Your task to perform on an android device: toggle wifi Image 0: 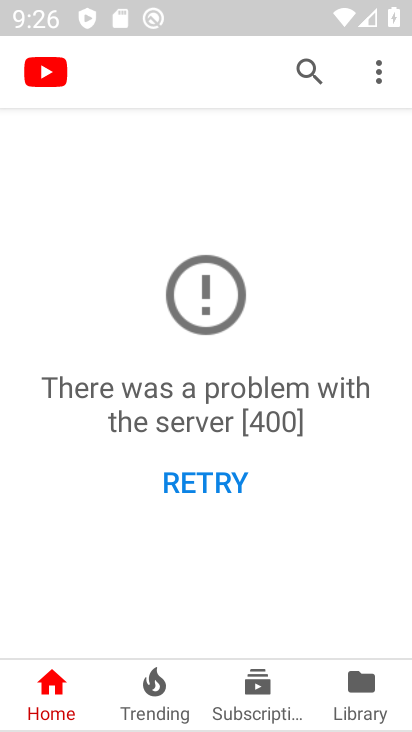
Step 0: press back button
Your task to perform on an android device: toggle wifi Image 1: 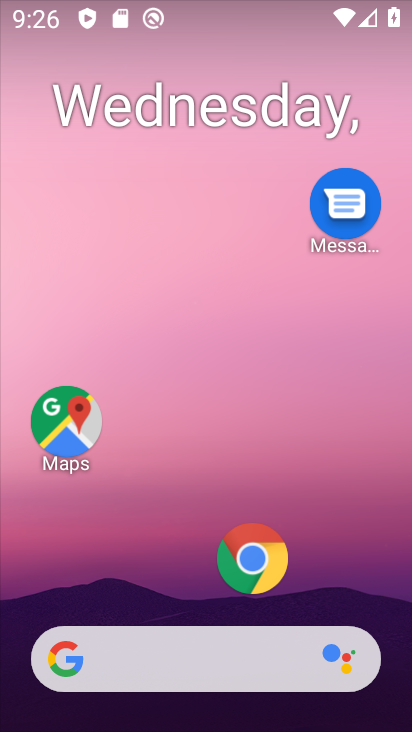
Step 1: drag from (198, 664) to (166, 51)
Your task to perform on an android device: toggle wifi Image 2: 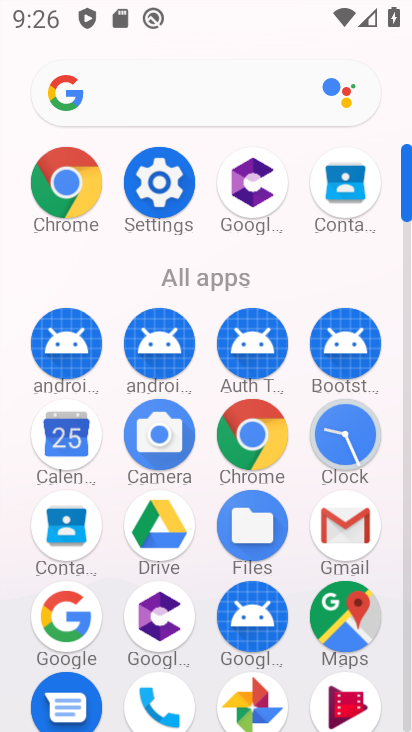
Step 2: click (149, 173)
Your task to perform on an android device: toggle wifi Image 3: 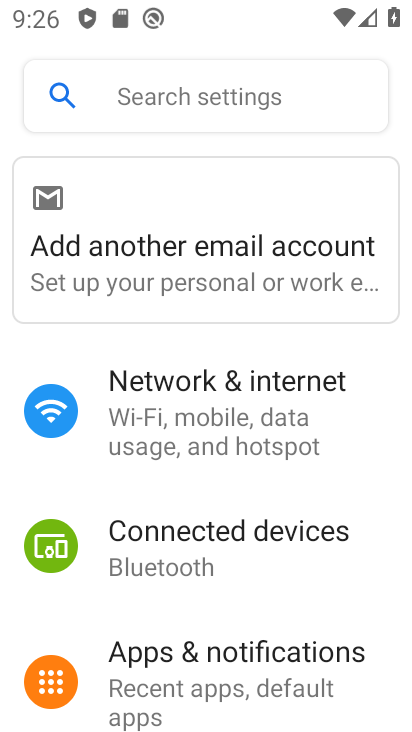
Step 3: click (200, 430)
Your task to perform on an android device: toggle wifi Image 4: 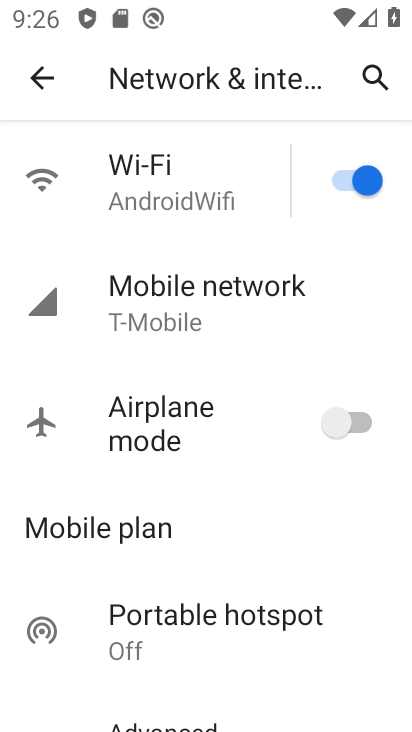
Step 4: click (353, 171)
Your task to perform on an android device: toggle wifi Image 5: 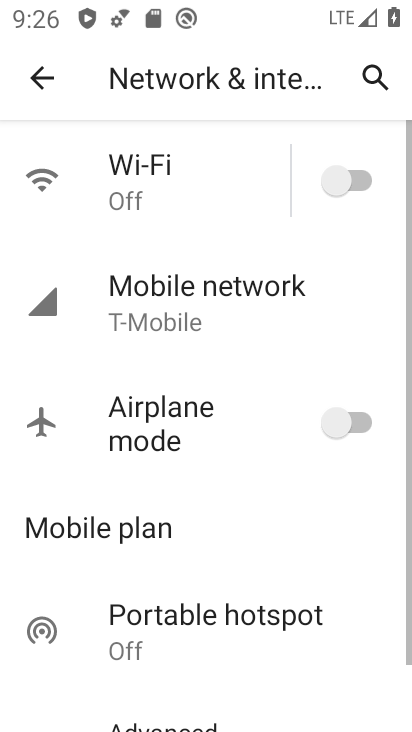
Step 5: task complete